Your task to perform on an android device: What is the news today? Image 0: 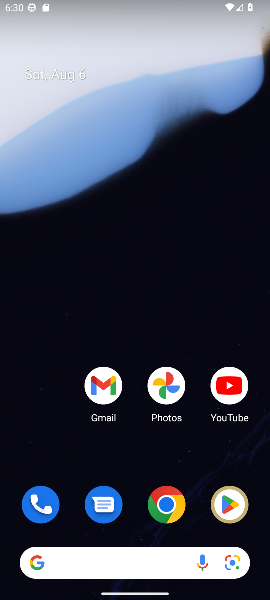
Step 0: drag from (112, 563) to (129, 122)
Your task to perform on an android device: What is the news today? Image 1: 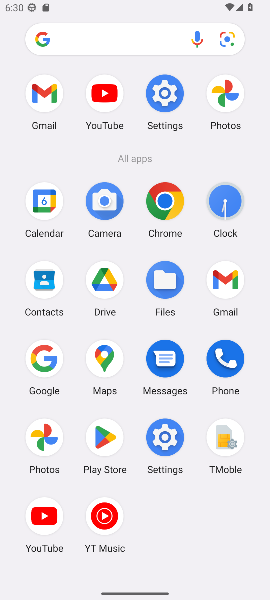
Step 1: click (44, 359)
Your task to perform on an android device: What is the news today? Image 2: 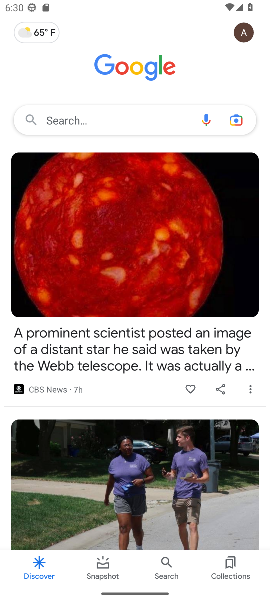
Step 2: click (128, 120)
Your task to perform on an android device: What is the news today? Image 3: 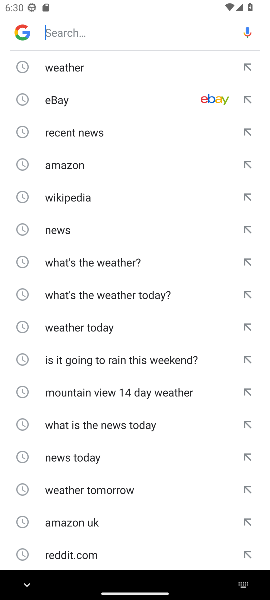
Step 3: click (63, 226)
Your task to perform on an android device: What is the news today? Image 4: 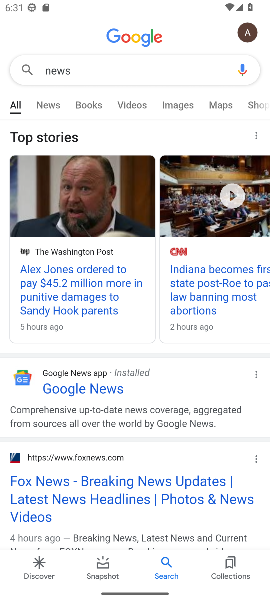
Step 4: click (219, 299)
Your task to perform on an android device: What is the news today? Image 5: 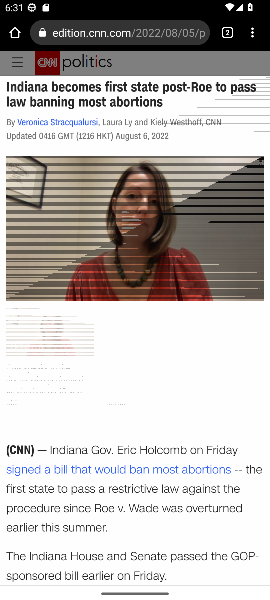
Step 5: task complete